Your task to perform on an android device: find snoozed emails in the gmail app Image 0: 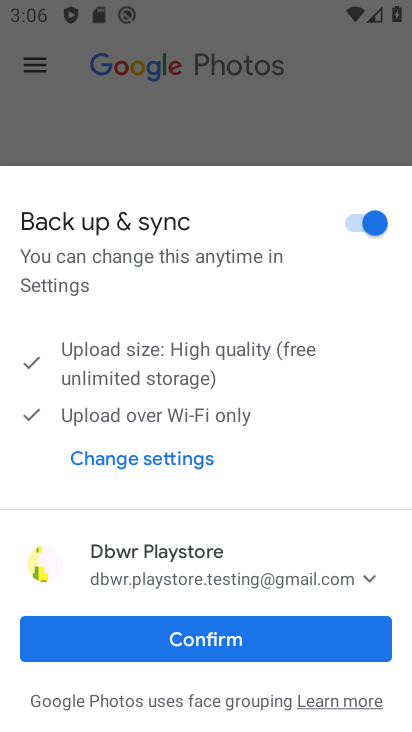
Step 0: press home button
Your task to perform on an android device: find snoozed emails in the gmail app Image 1: 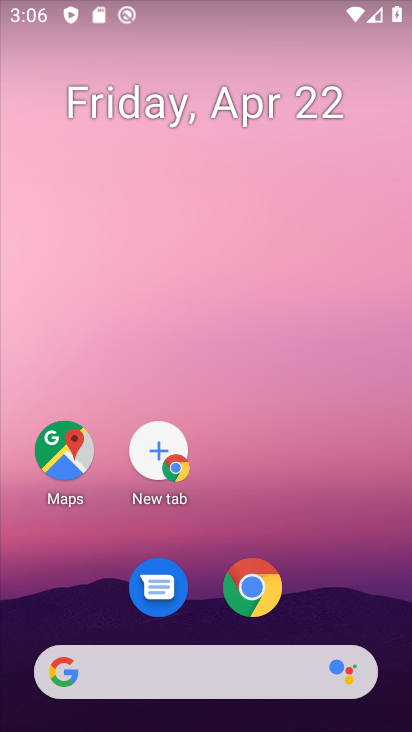
Step 1: drag from (216, 610) to (228, 117)
Your task to perform on an android device: find snoozed emails in the gmail app Image 2: 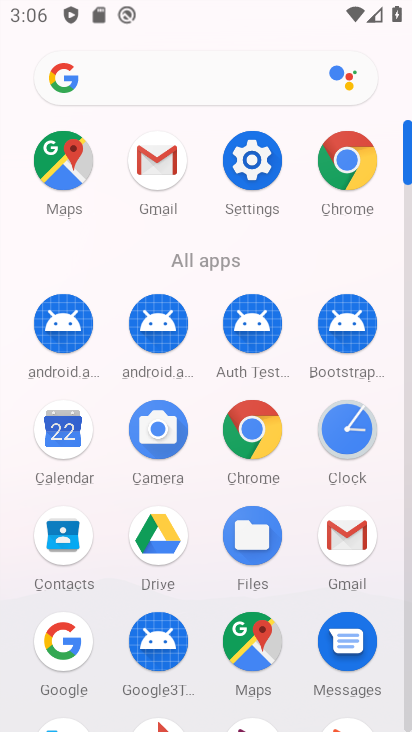
Step 2: click (148, 153)
Your task to perform on an android device: find snoozed emails in the gmail app Image 3: 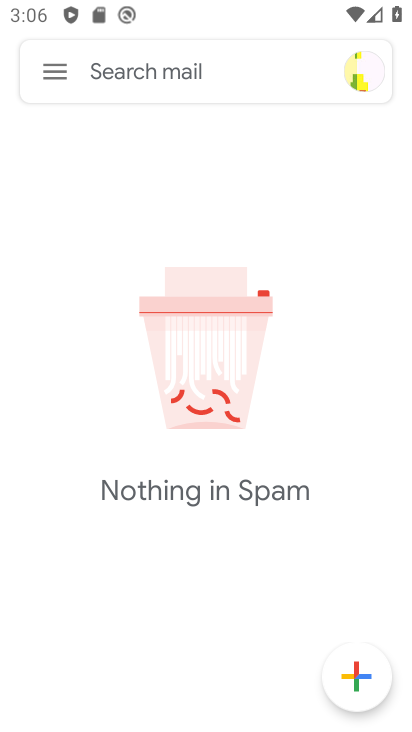
Step 3: click (58, 64)
Your task to perform on an android device: find snoozed emails in the gmail app Image 4: 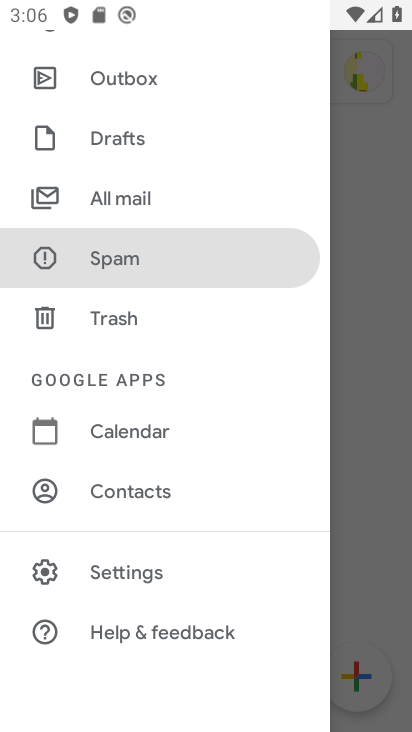
Step 4: drag from (192, 229) to (216, 610)
Your task to perform on an android device: find snoozed emails in the gmail app Image 5: 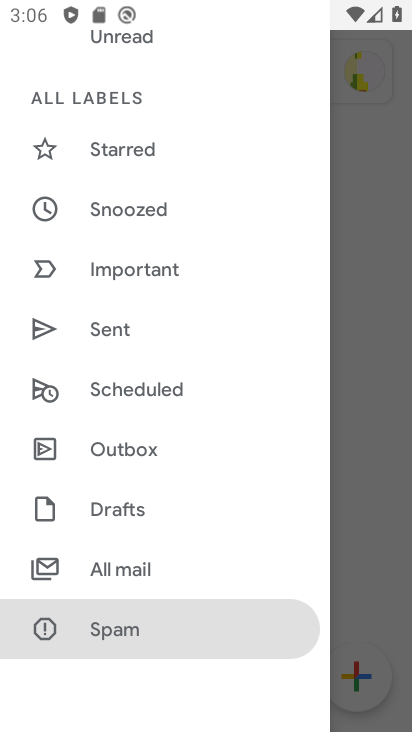
Step 5: click (158, 218)
Your task to perform on an android device: find snoozed emails in the gmail app Image 6: 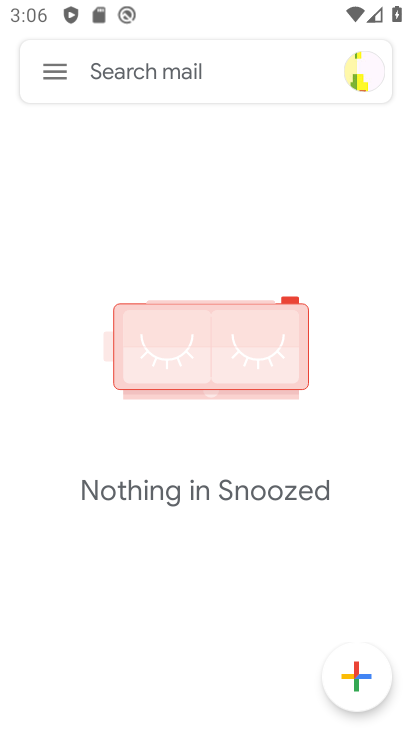
Step 6: task complete